Your task to perform on an android device: Open Chrome and go to settings Image 0: 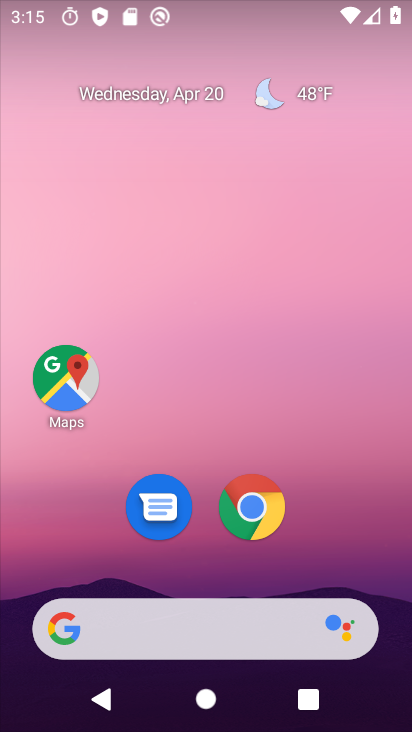
Step 0: click (278, 530)
Your task to perform on an android device: Open Chrome and go to settings Image 1: 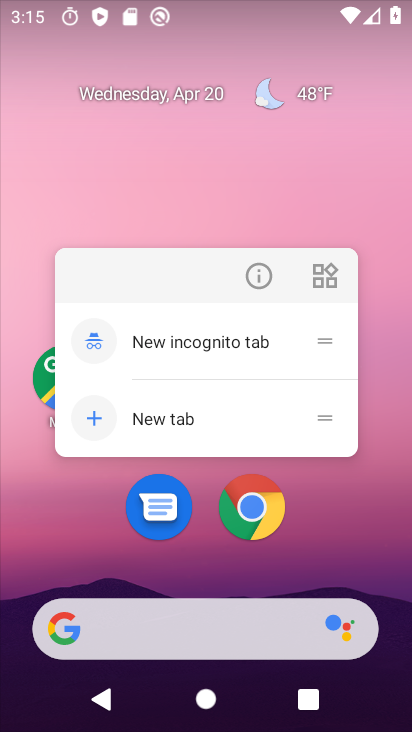
Step 1: click (278, 530)
Your task to perform on an android device: Open Chrome and go to settings Image 2: 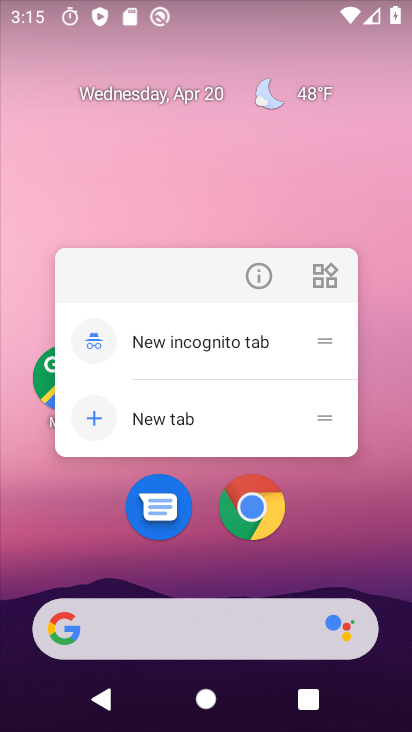
Step 2: click (269, 524)
Your task to perform on an android device: Open Chrome and go to settings Image 3: 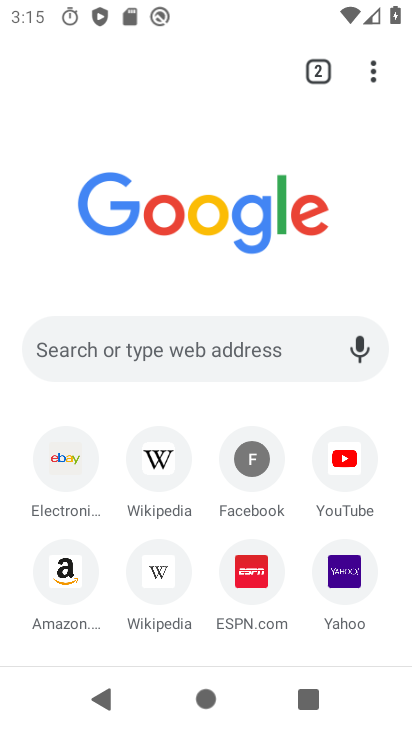
Step 3: task complete